Your task to perform on an android device: When is my next meeting? Image 0: 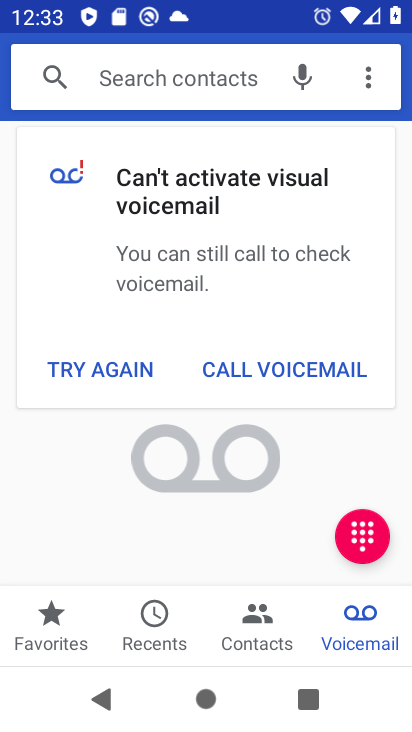
Step 0: press home button
Your task to perform on an android device: When is my next meeting? Image 1: 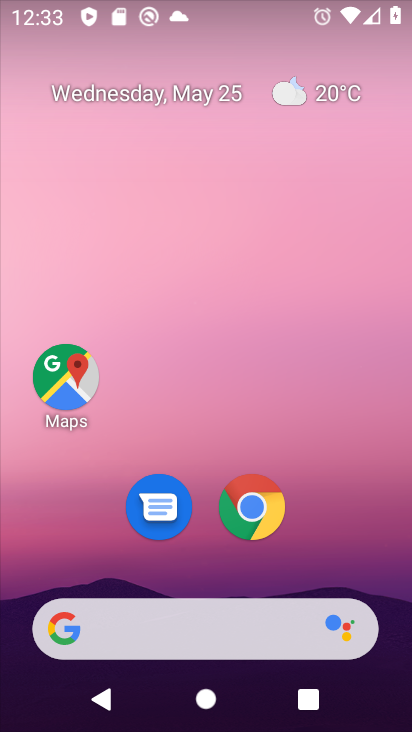
Step 1: drag from (386, 564) to (321, 154)
Your task to perform on an android device: When is my next meeting? Image 2: 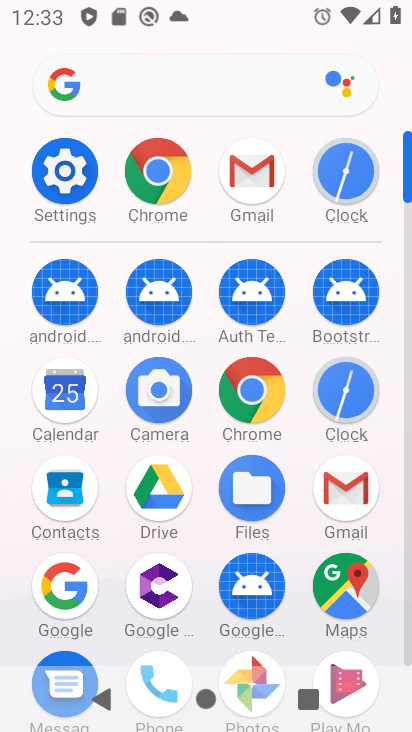
Step 2: click (63, 411)
Your task to perform on an android device: When is my next meeting? Image 3: 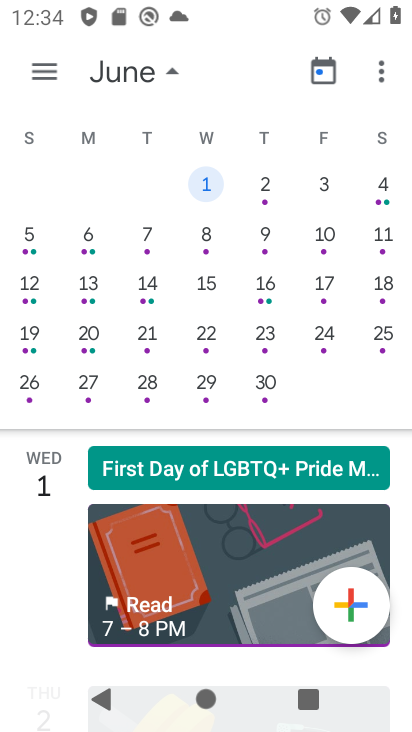
Step 3: drag from (126, 641) to (206, 265)
Your task to perform on an android device: When is my next meeting? Image 4: 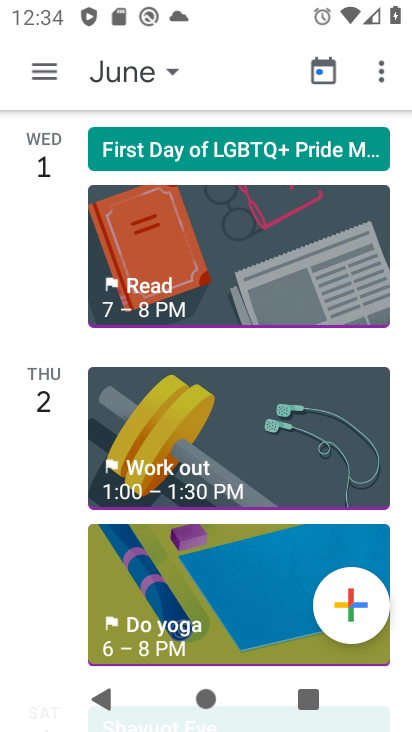
Step 4: drag from (170, 566) to (210, 313)
Your task to perform on an android device: When is my next meeting? Image 5: 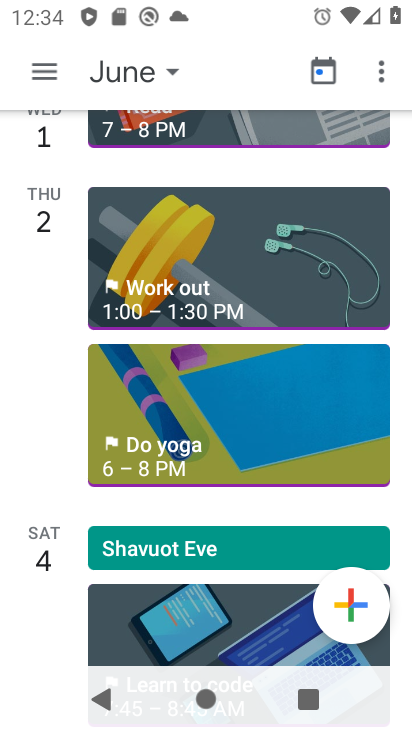
Step 5: drag from (178, 660) to (258, 224)
Your task to perform on an android device: When is my next meeting? Image 6: 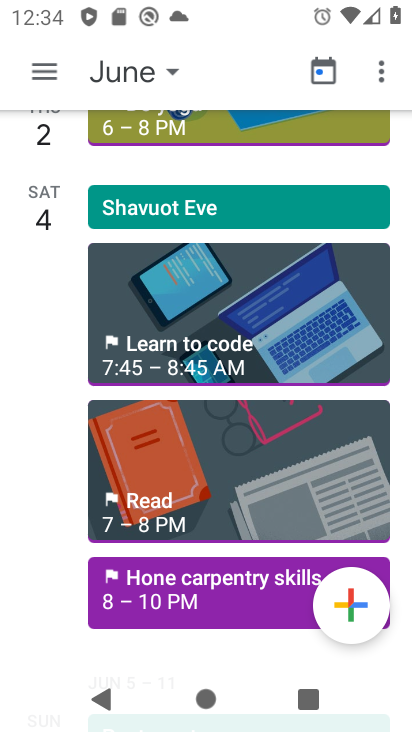
Step 6: drag from (164, 536) to (194, 342)
Your task to perform on an android device: When is my next meeting? Image 7: 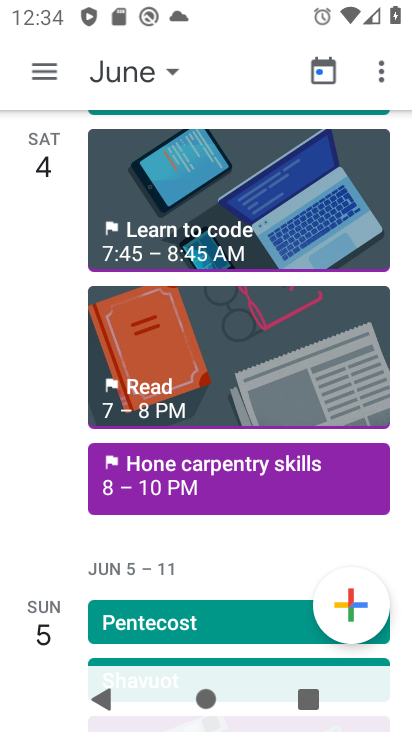
Step 7: drag from (152, 527) to (192, 232)
Your task to perform on an android device: When is my next meeting? Image 8: 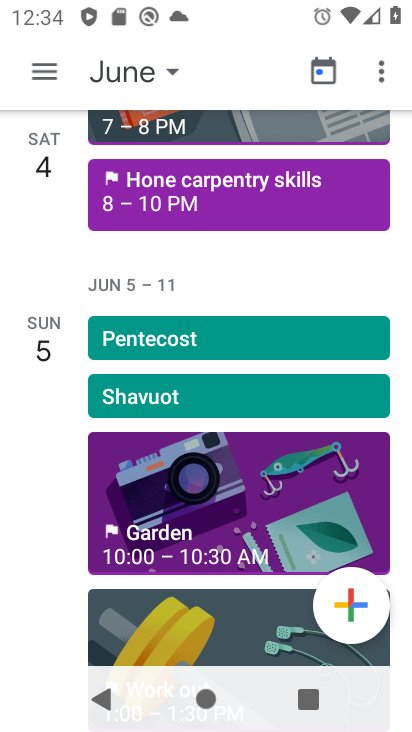
Step 8: drag from (125, 542) to (185, 219)
Your task to perform on an android device: When is my next meeting? Image 9: 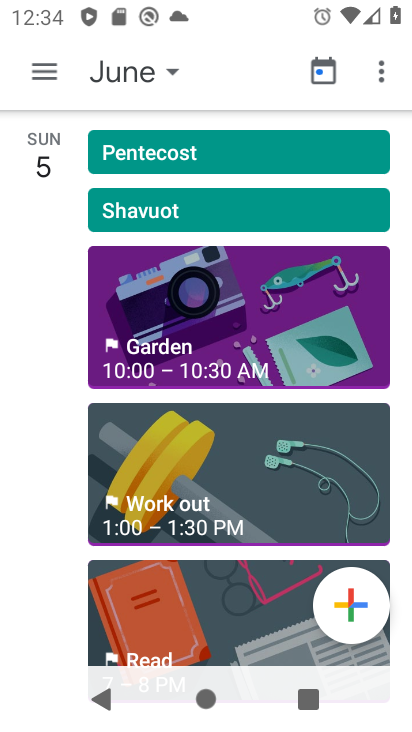
Step 9: drag from (172, 544) to (199, 237)
Your task to perform on an android device: When is my next meeting? Image 10: 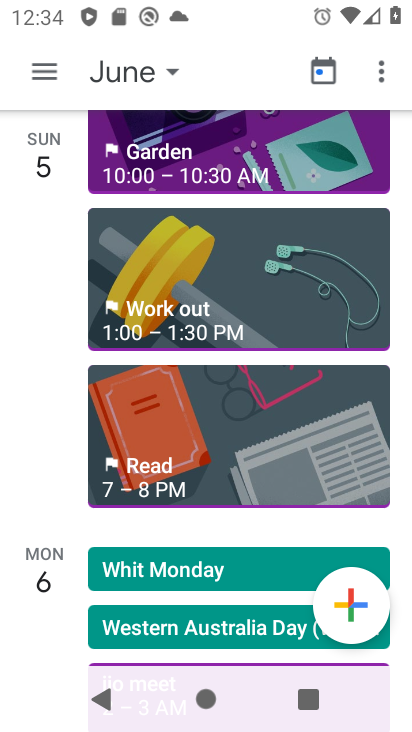
Step 10: drag from (135, 594) to (210, 239)
Your task to perform on an android device: When is my next meeting? Image 11: 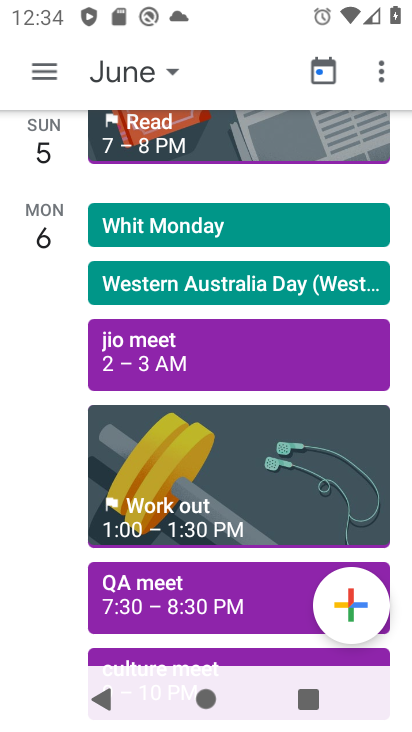
Step 11: drag from (108, 549) to (167, 271)
Your task to perform on an android device: When is my next meeting? Image 12: 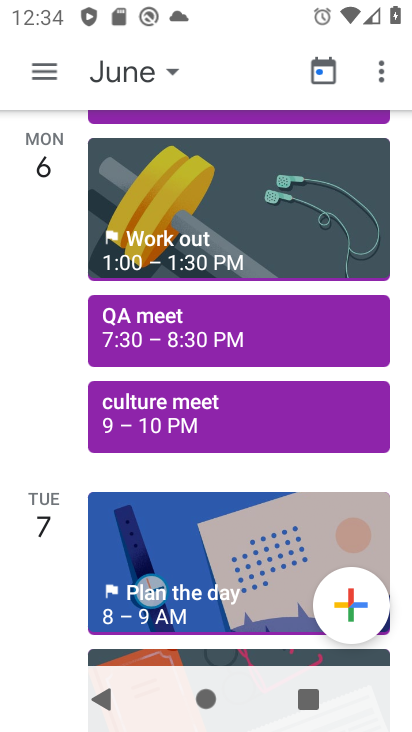
Step 12: click (145, 415)
Your task to perform on an android device: When is my next meeting? Image 13: 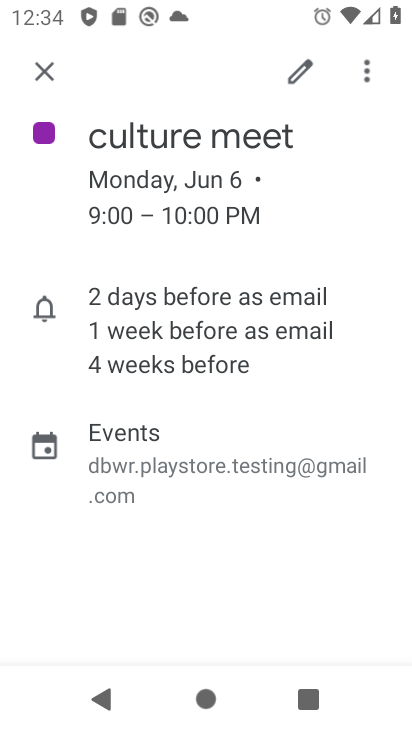
Step 13: task complete